Your task to perform on an android device: What's the weather today? Image 0: 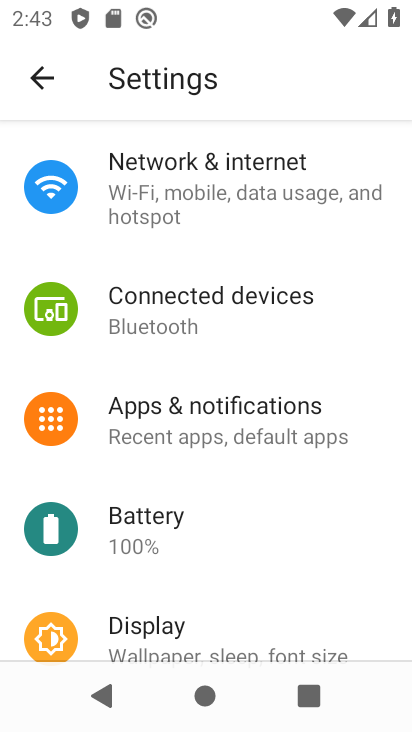
Step 0: press home button
Your task to perform on an android device: What's the weather today? Image 1: 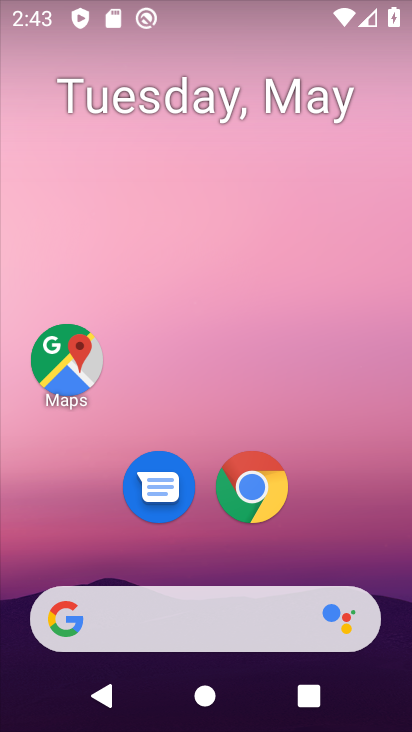
Step 1: drag from (129, 591) to (249, 67)
Your task to perform on an android device: What's the weather today? Image 2: 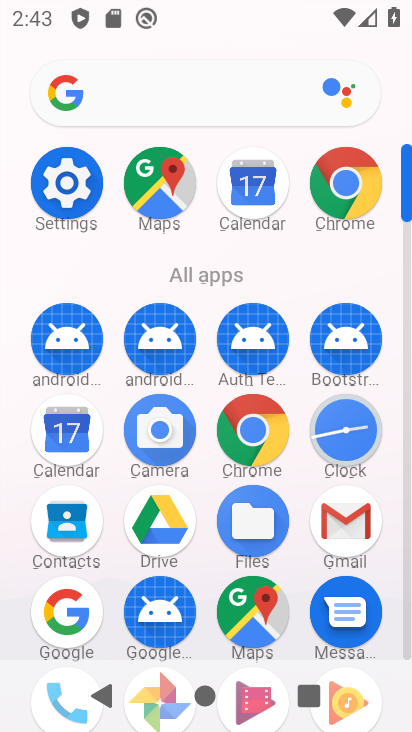
Step 2: drag from (160, 551) to (217, 402)
Your task to perform on an android device: What's the weather today? Image 3: 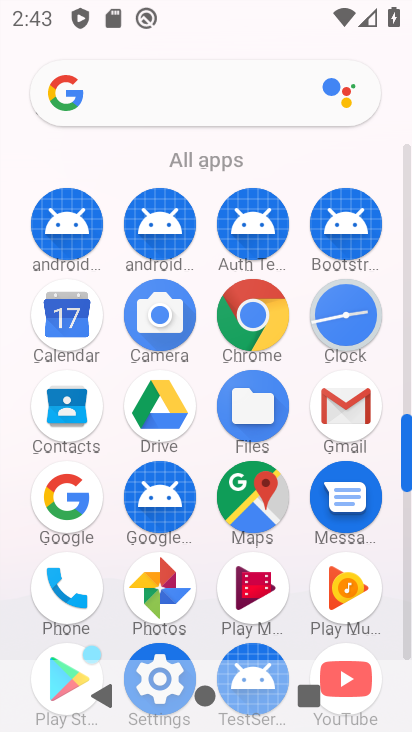
Step 3: click (48, 512)
Your task to perform on an android device: What's the weather today? Image 4: 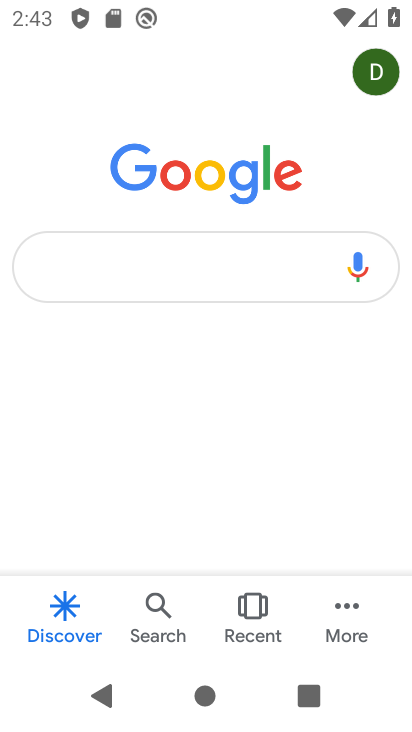
Step 4: click (179, 263)
Your task to perform on an android device: What's the weather today? Image 5: 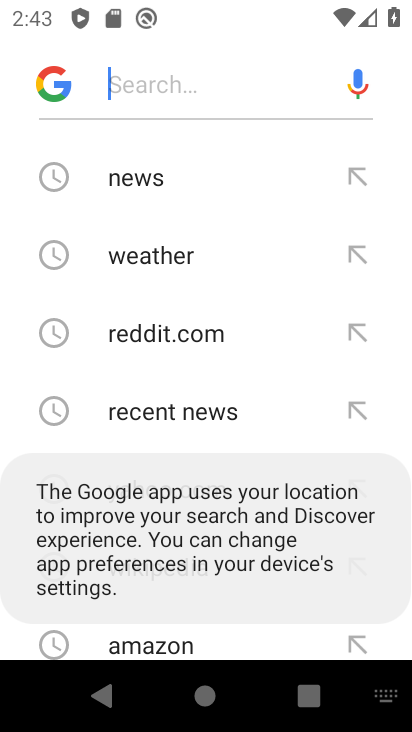
Step 5: click (182, 260)
Your task to perform on an android device: What's the weather today? Image 6: 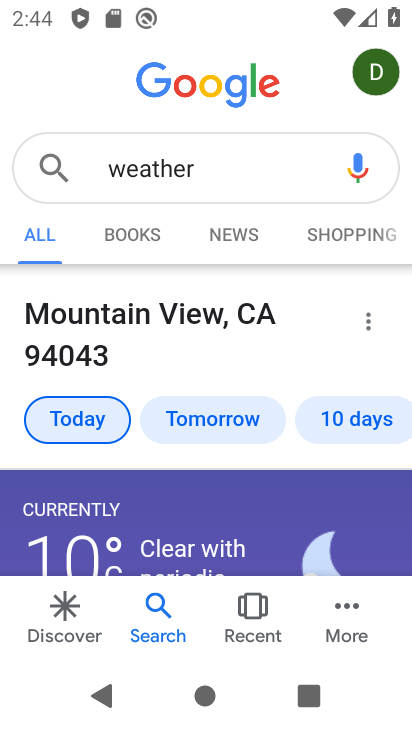
Step 6: task complete